Your task to perform on an android device: turn off improve location accuracy Image 0: 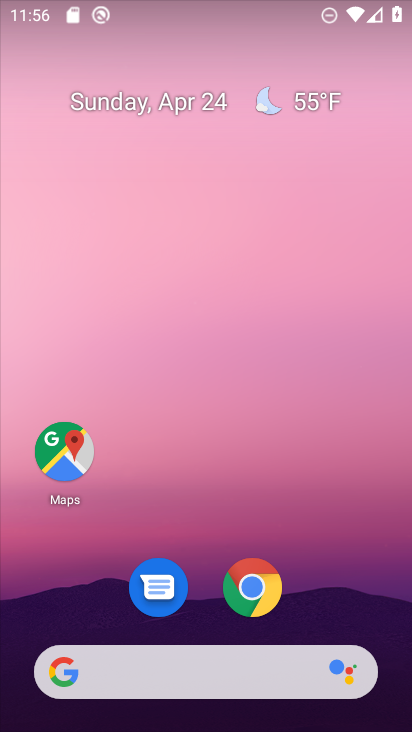
Step 0: drag from (348, 607) to (326, 90)
Your task to perform on an android device: turn off improve location accuracy Image 1: 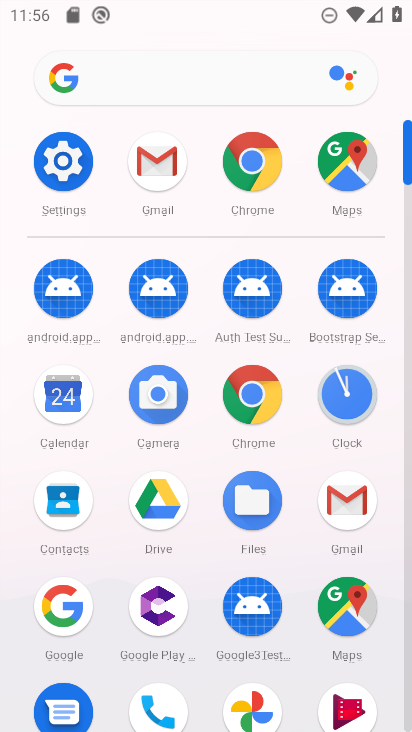
Step 1: click (66, 151)
Your task to perform on an android device: turn off improve location accuracy Image 2: 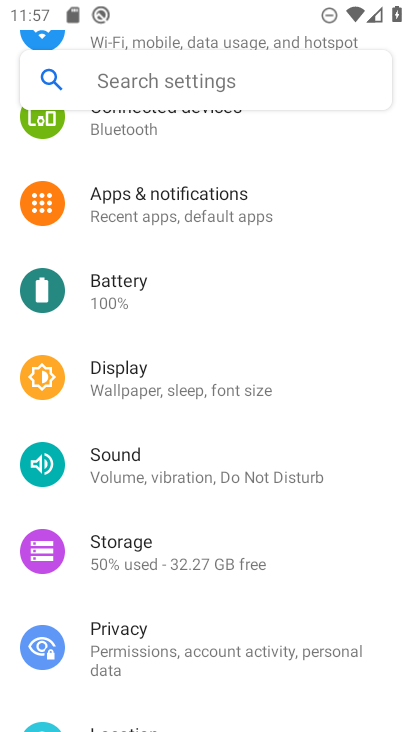
Step 2: drag from (212, 475) to (239, 45)
Your task to perform on an android device: turn off improve location accuracy Image 3: 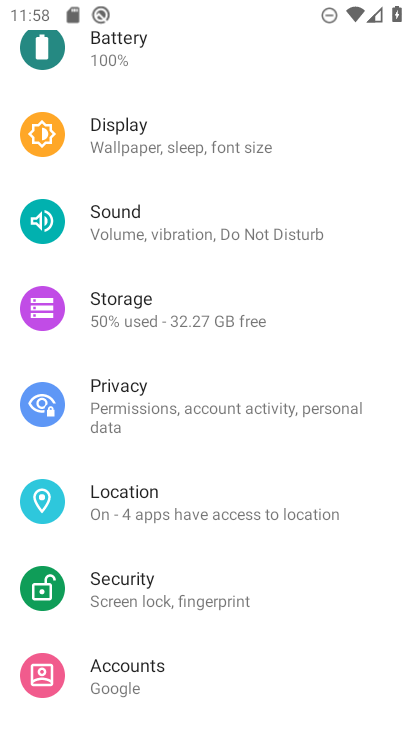
Step 3: click (186, 513)
Your task to perform on an android device: turn off improve location accuracy Image 4: 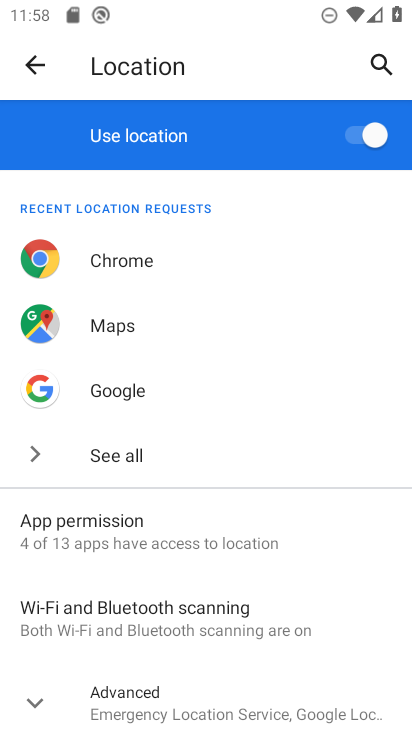
Step 4: drag from (239, 583) to (236, 190)
Your task to perform on an android device: turn off improve location accuracy Image 5: 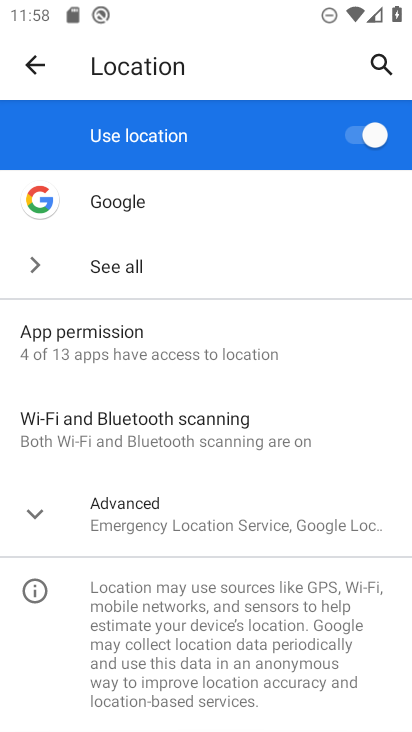
Step 5: click (167, 517)
Your task to perform on an android device: turn off improve location accuracy Image 6: 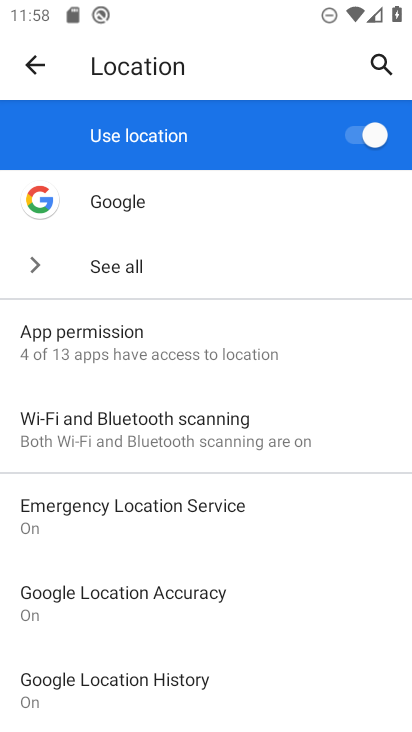
Step 6: click (192, 680)
Your task to perform on an android device: turn off improve location accuracy Image 7: 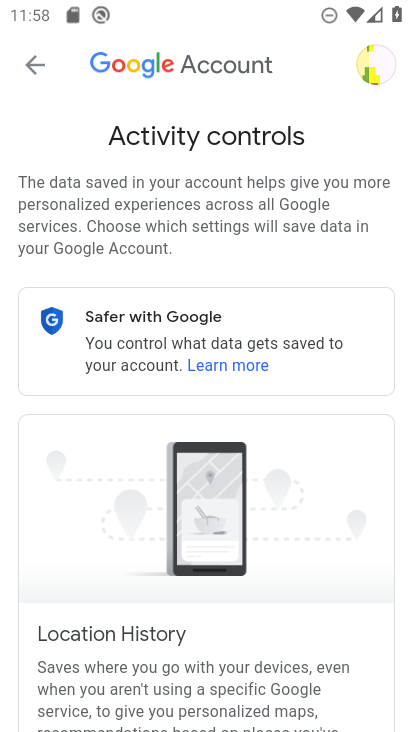
Step 7: task complete